Your task to perform on an android device: Open Yahoo.com Image 0: 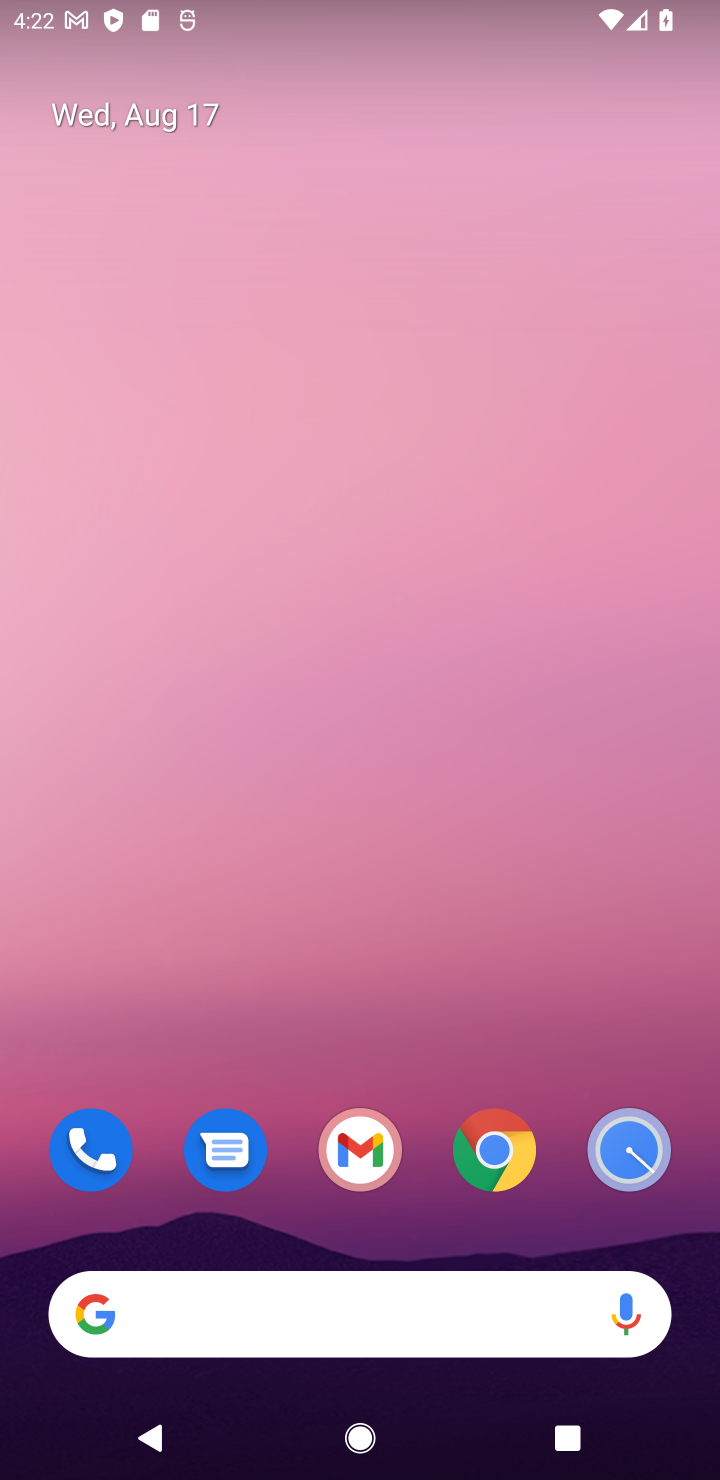
Step 0: drag from (651, 1212) to (372, 26)
Your task to perform on an android device: Open Yahoo.com Image 1: 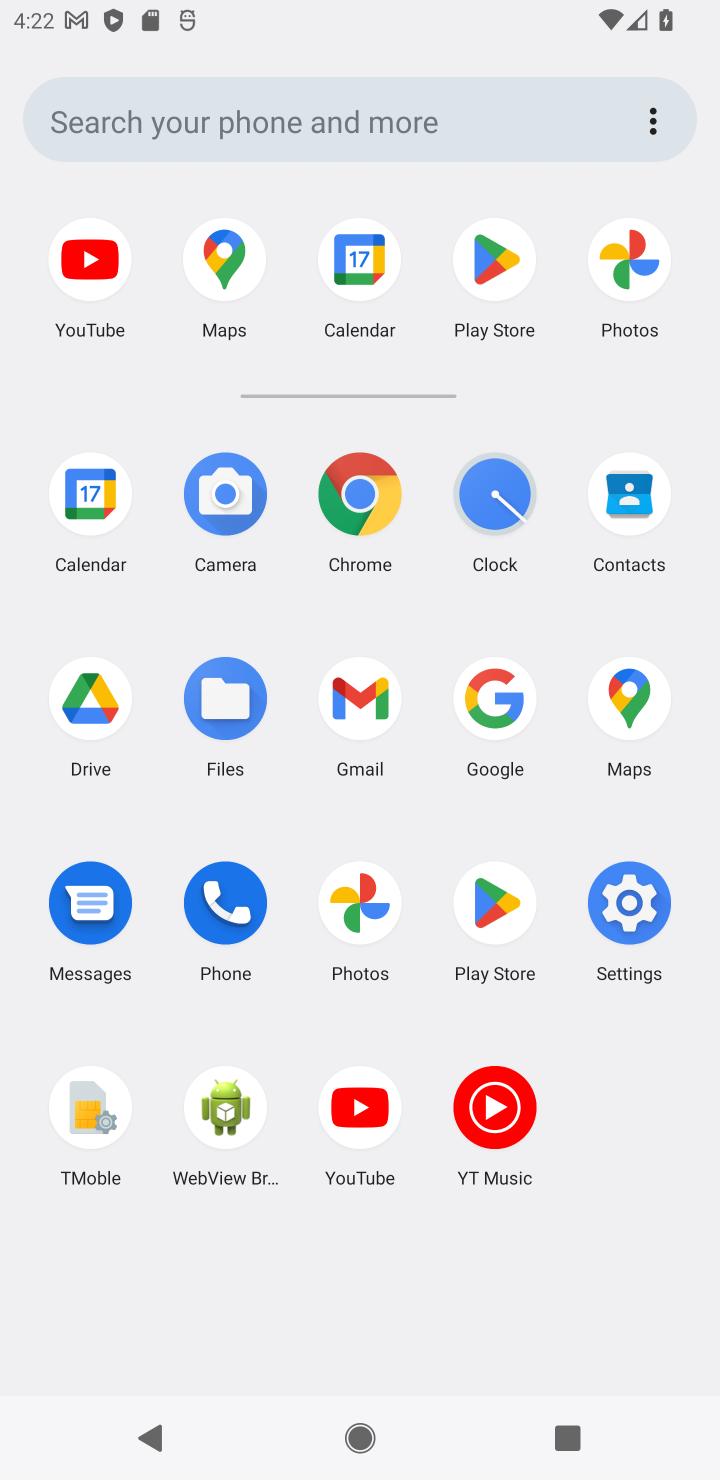
Step 1: click (491, 720)
Your task to perform on an android device: Open Yahoo.com Image 2: 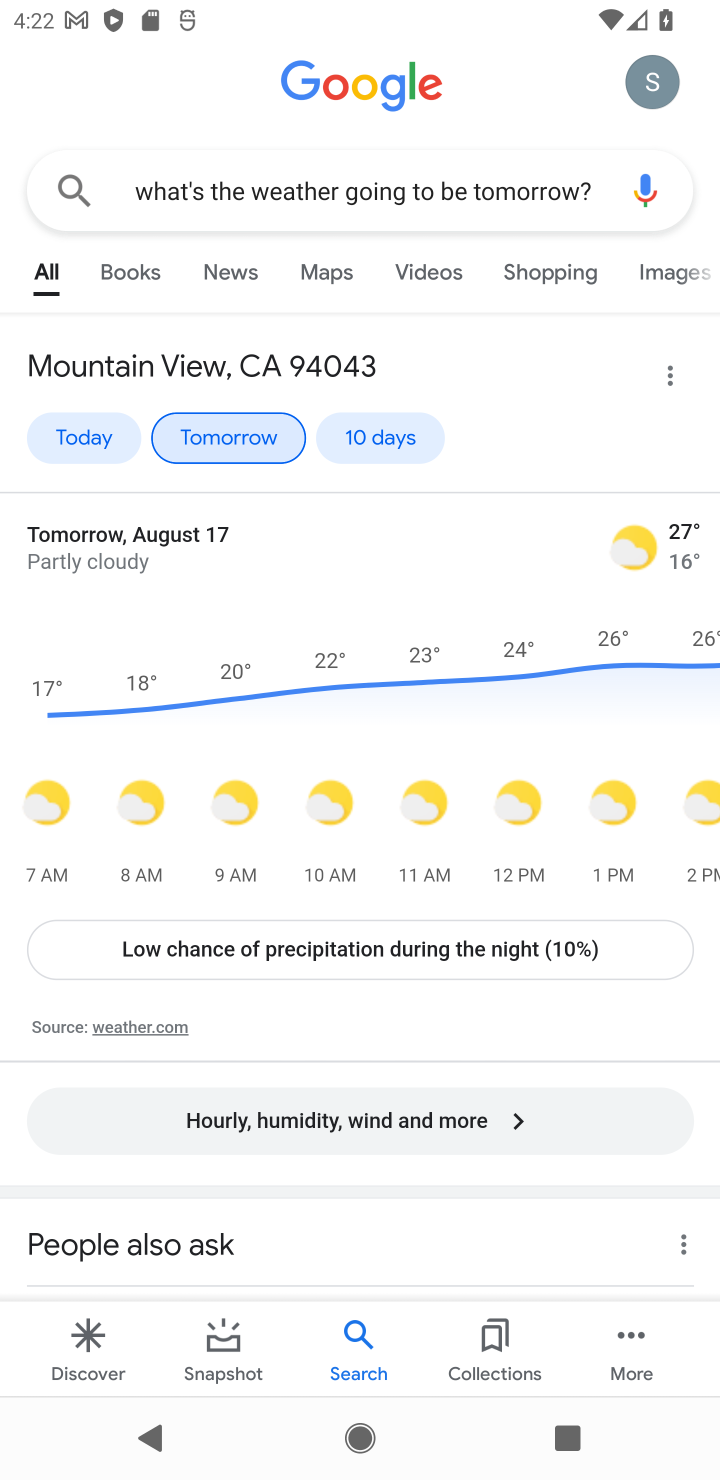
Step 2: press back button
Your task to perform on an android device: Open Yahoo.com Image 3: 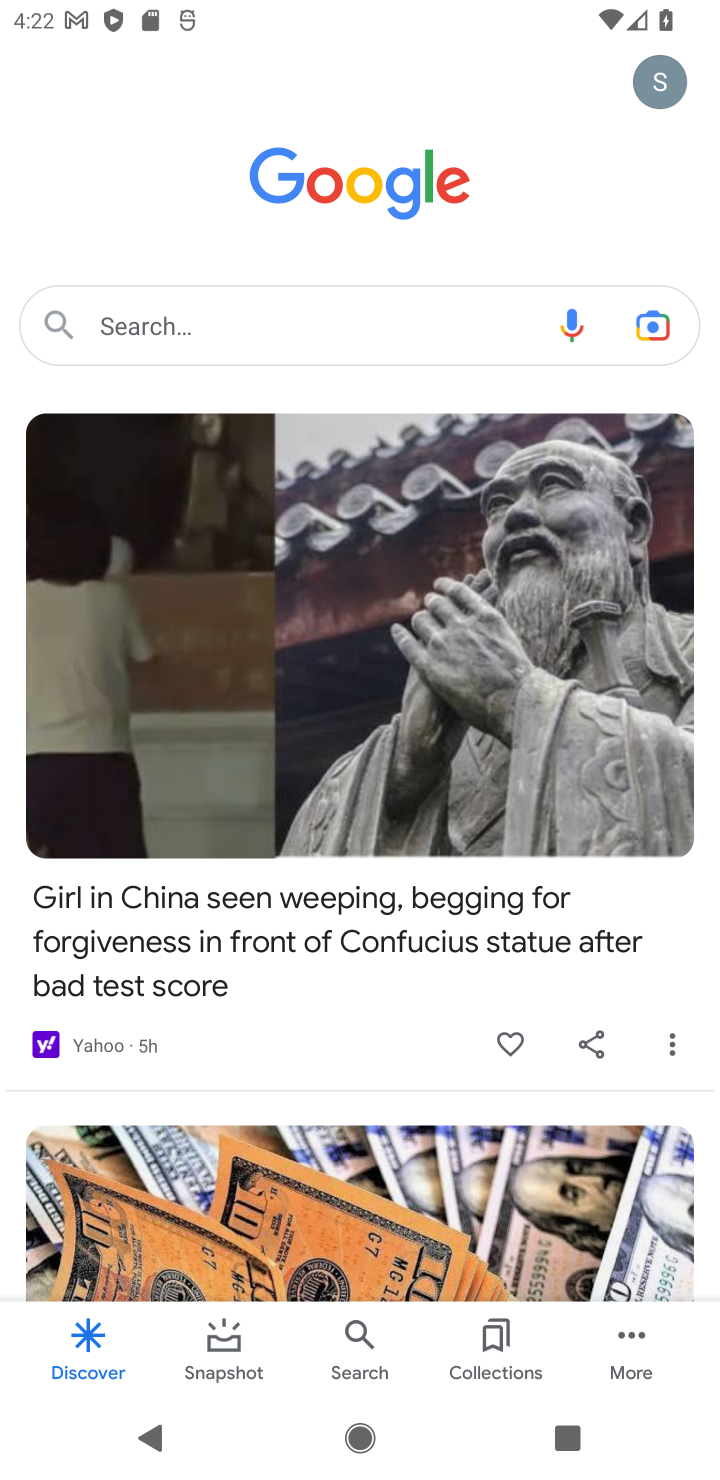
Step 3: click (149, 335)
Your task to perform on an android device: Open Yahoo.com Image 4: 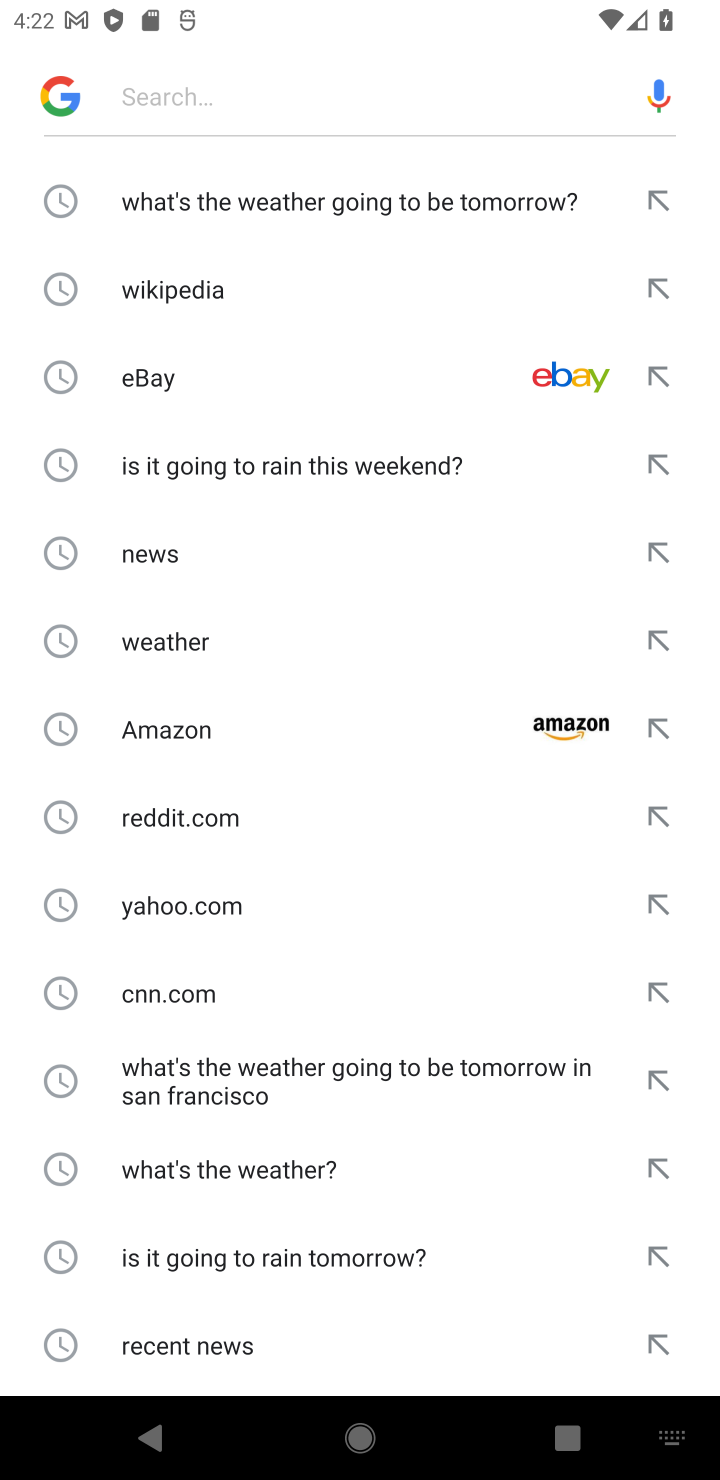
Step 4: drag from (215, 1105) to (317, 123)
Your task to perform on an android device: Open Yahoo.com Image 5: 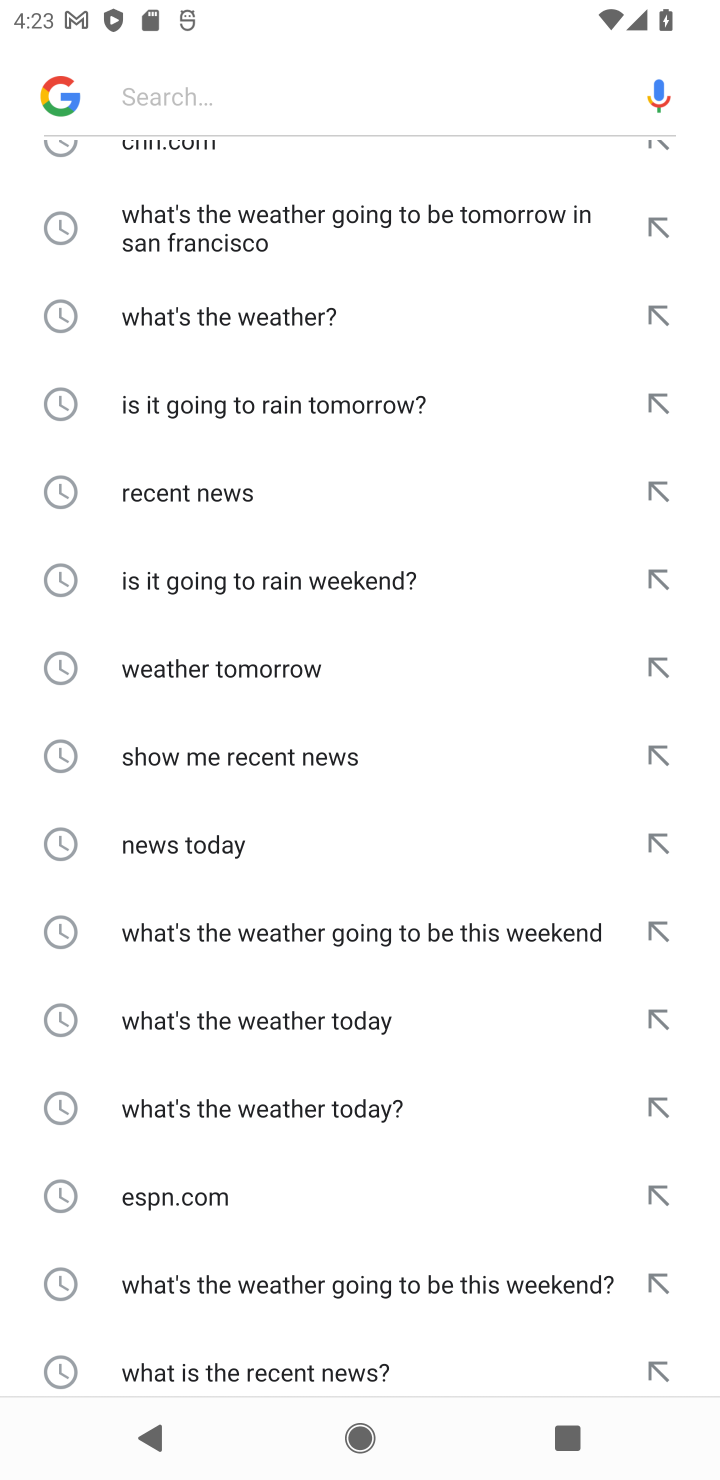
Step 5: type "Yahoo.com"
Your task to perform on an android device: Open Yahoo.com Image 6: 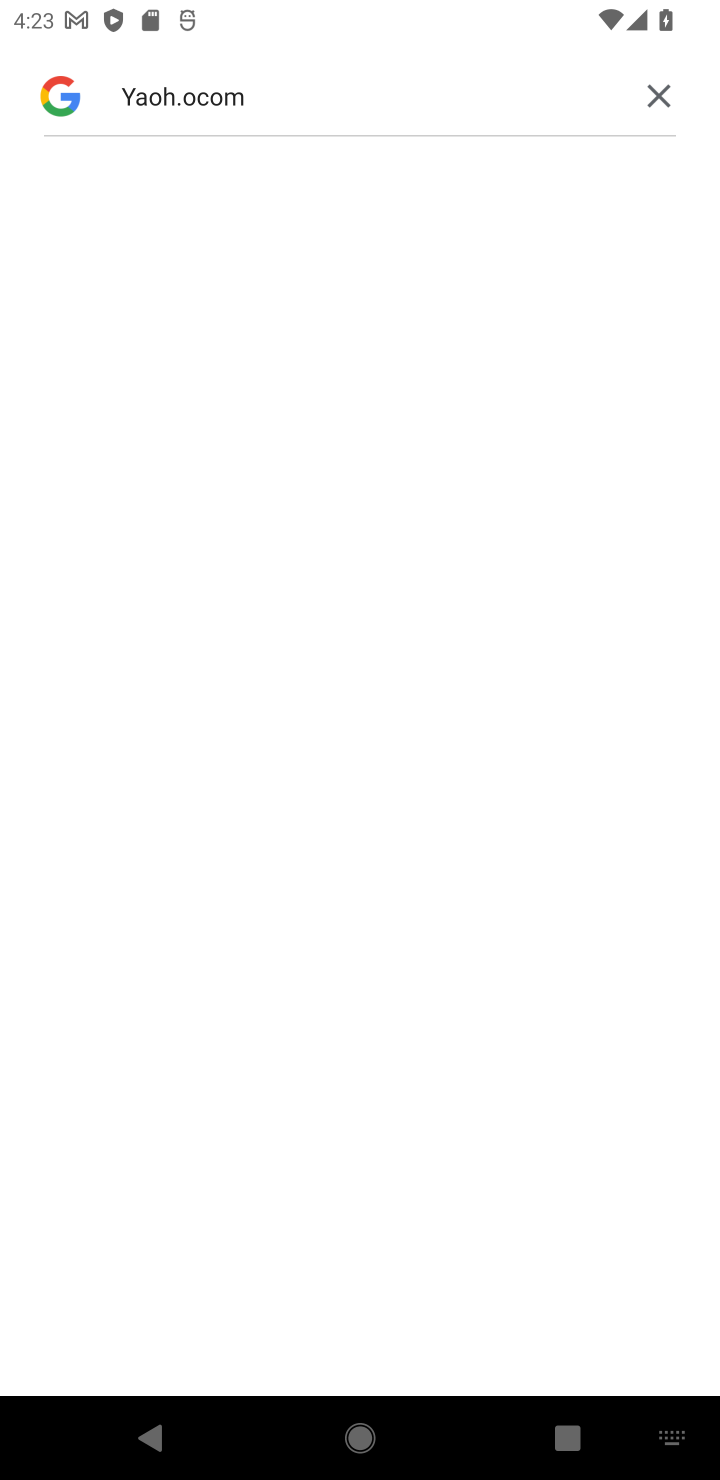
Step 6: task complete